Your task to perform on an android device: Set the phone to "Do not disturb". Image 0: 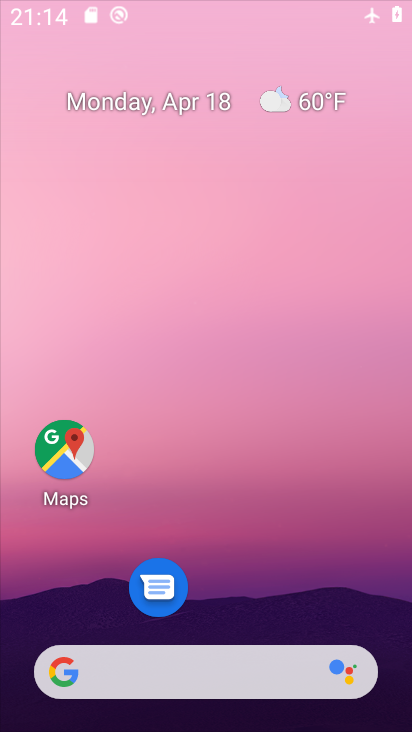
Step 0: click (300, 24)
Your task to perform on an android device: Set the phone to "Do not disturb". Image 1: 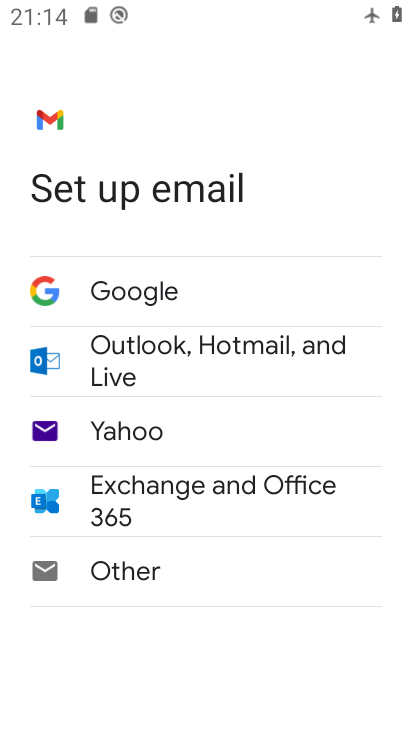
Step 1: press home button
Your task to perform on an android device: Set the phone to "Do not disturb". Image 2: 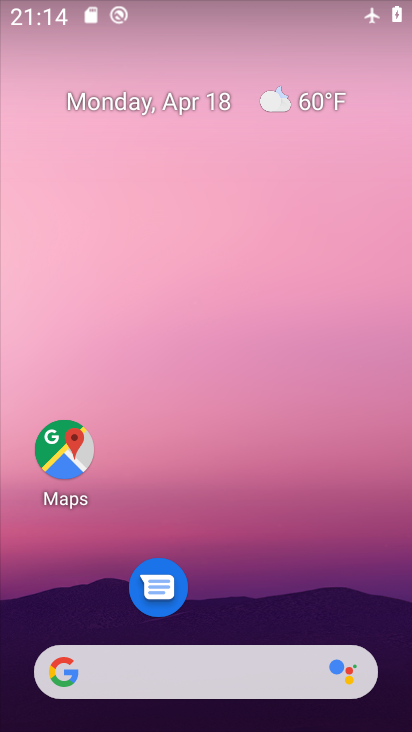
Step 2: drag from (284, 595) to (332, 30)
Your task to perform on an android device: Set the phone to "Do not disturb". Image 3: 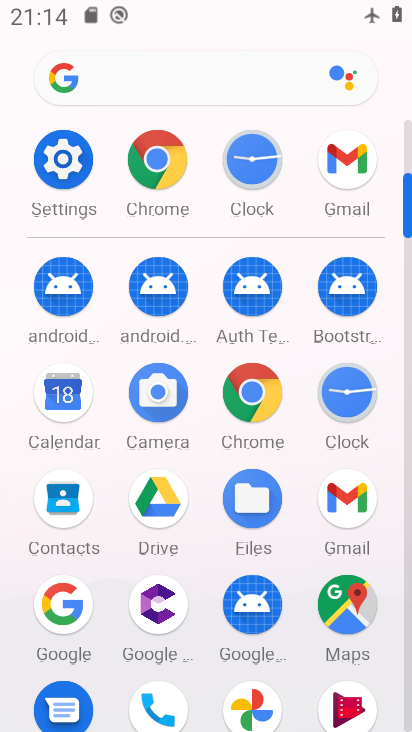
Step 3: click (72, 176)
Your task to perform on an android device: Set the phone to "Do not disturb". Image 4: 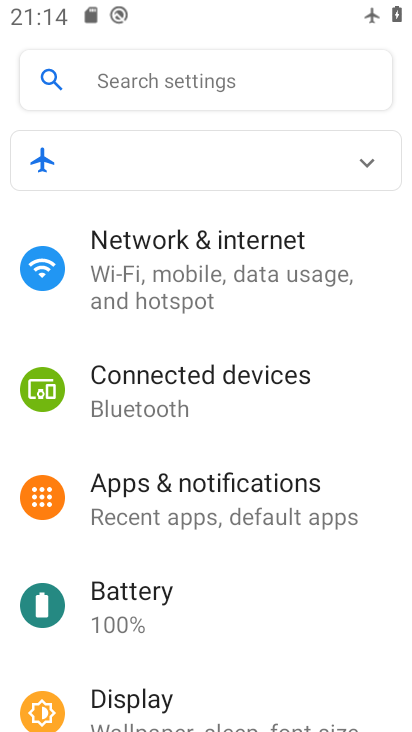
Step 4: drag from (211, 577) to (245, 202)
Your task to perform on an android device: Set the phone to "Do not disturb". Image 5: 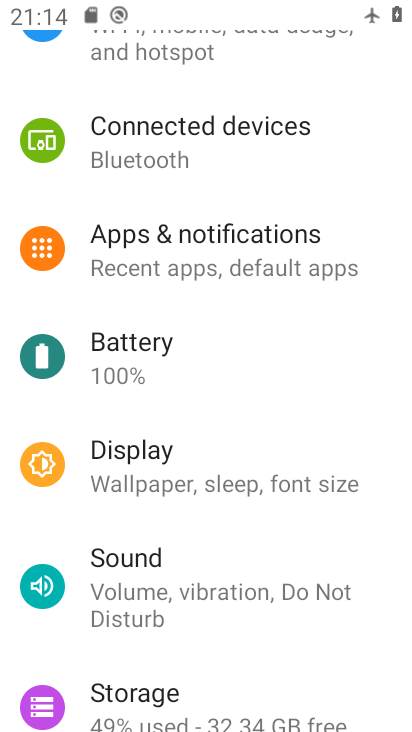
Step 5: click (284, 618)
Your task to perform on an android device: Set the phone to "Do not disturb". Image 6: 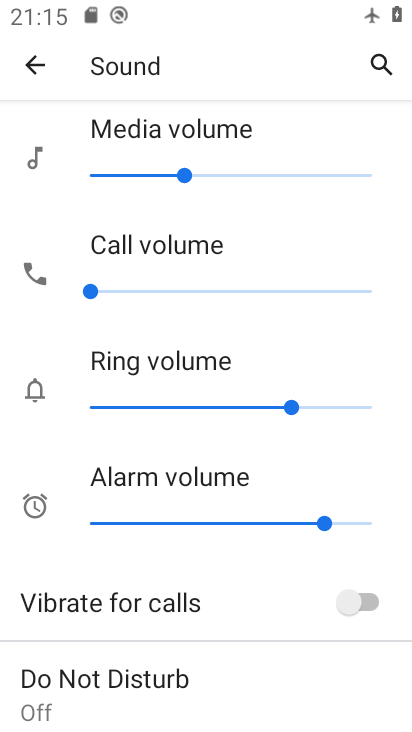
Step 6: drag from (278, 647) to (295, 382)
Your task to perform on an android device: Set the phone to "Do not disturb". Image 7: 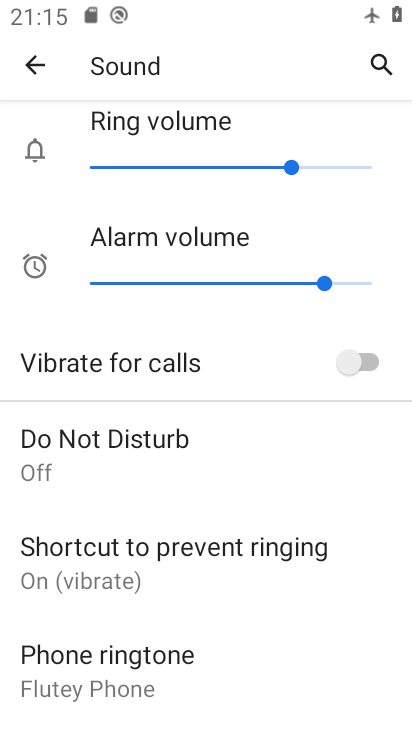
Step 7: click (264, 460)
Your task to perform on an android device: Set the phone to "Do not disturb". Image 8: 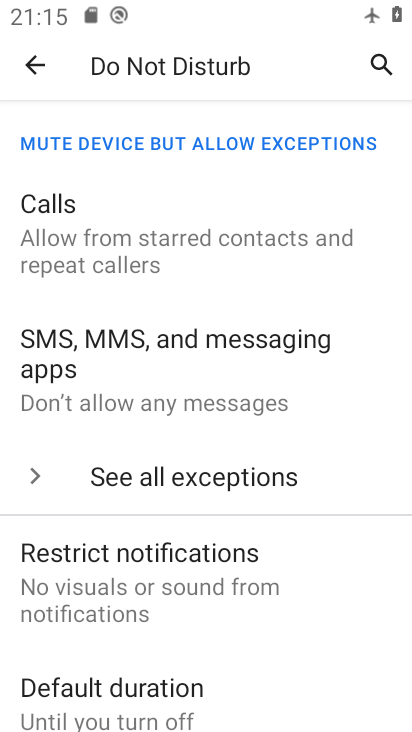
Step 8: drag from (312, 573) to (279, 155)
Your task to perform on an android device: Set the phone to "Do not disturb". Image 9: 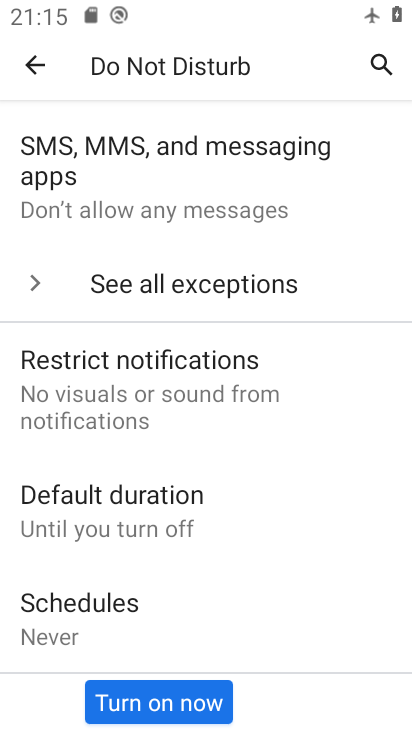
Step 9: click (223, 696)
Your task to perform on an android device: Set the phone to "Do not disturb". Image 10: 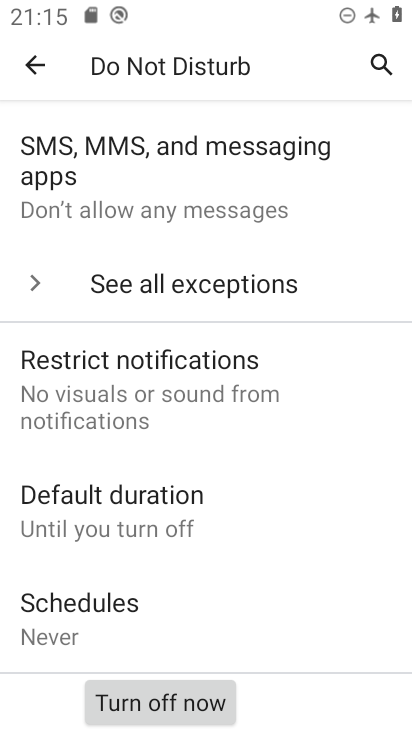
Step 10: task complete